Your task to perform on an android device: Do I have any events tomorrow? Image 0: 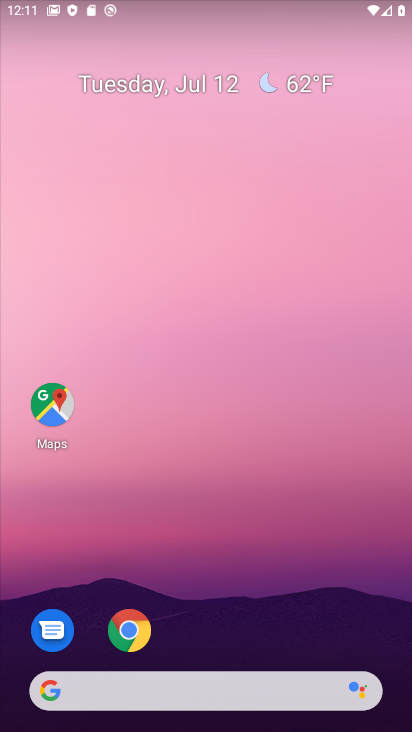
Step 0: drag from (234, 578) to (205, 87)
Your task to perform on an android device: Do I have any events tomorrow? Image 1: 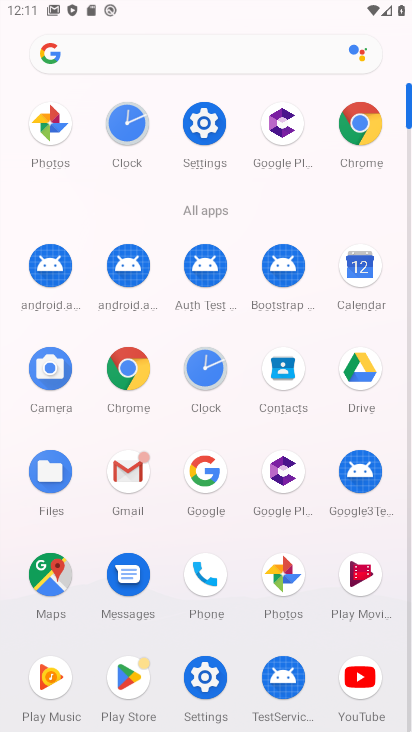
Step 1: click (366, 262)
Your task to perform on an android device: Do I have any events tomorrow? Image 2: 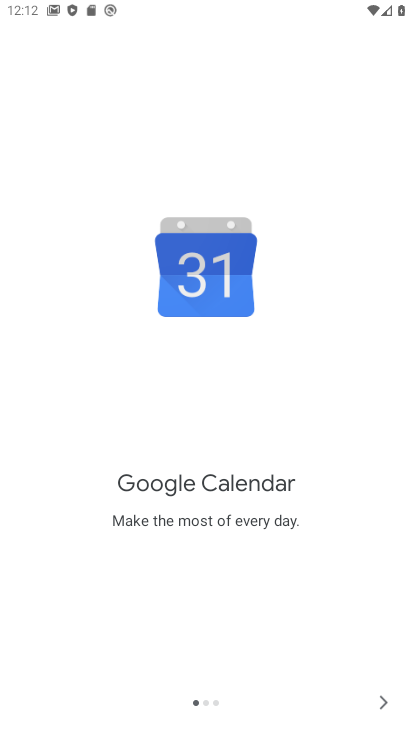
Step 2: click (384, 703)
Your task to perform on an android device: Do I have any events tomorrow? Image 3: 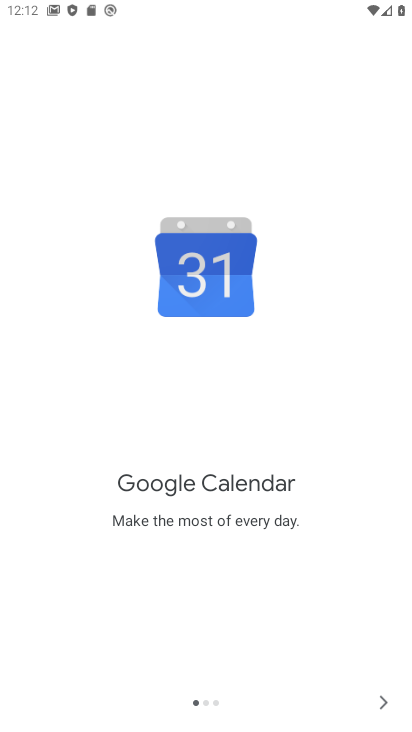
Step 3: click (384, 703)
Your task to perform on an android device: Do I have any events tomorrow? Image 4: 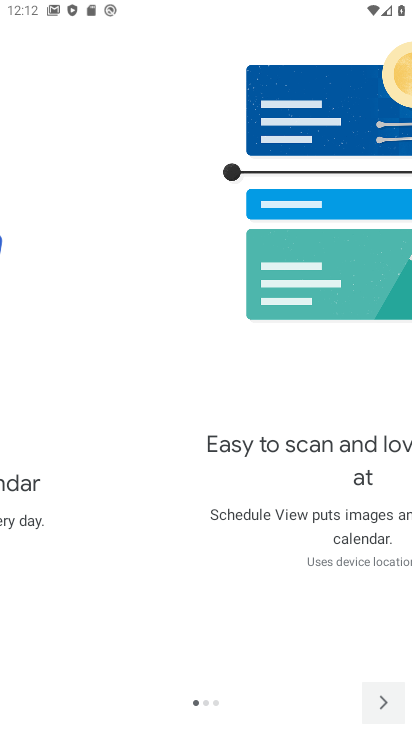
Step 4: click (384, 703)
Your task to perform on an android device: Do I have any events tomorrow? Image 5: 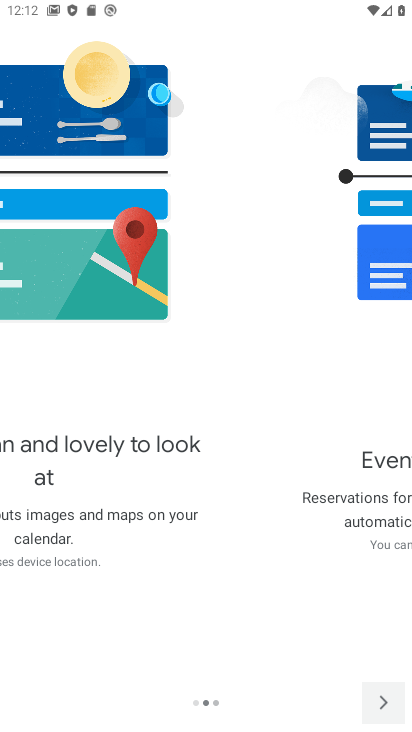
Step 5: click (384, 703)
Your task to perform on an android device: Do I have any events tomorrow? Image 6: 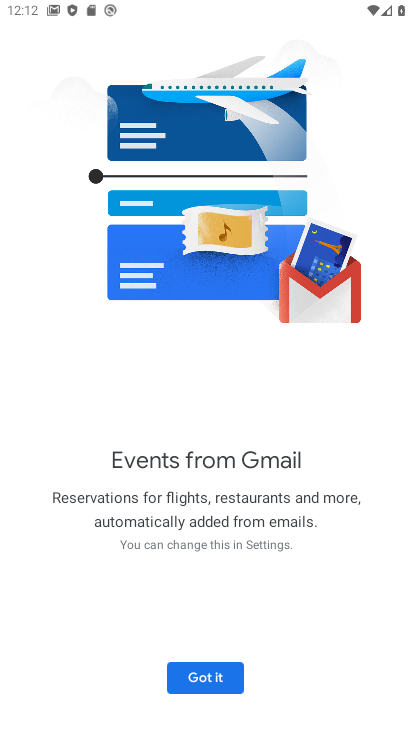
Step 6: click (192, 683)
Your task to perform on an android device: Do I have any events tomorrow? Image 7: 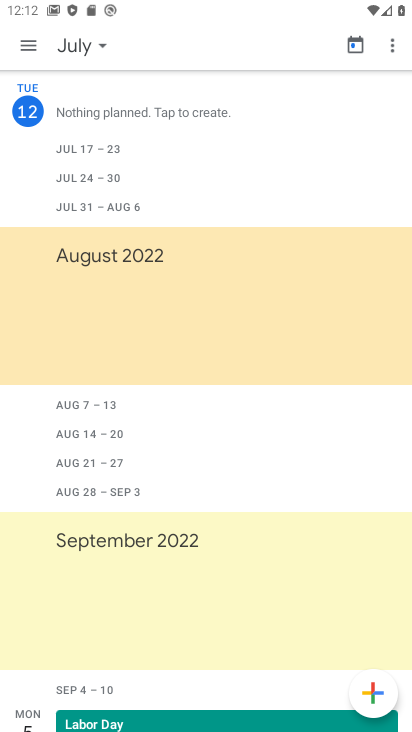
Step 7: click (24, 41)
Your task to perform on an android device: Do I have any events tomorrow? Image 8: 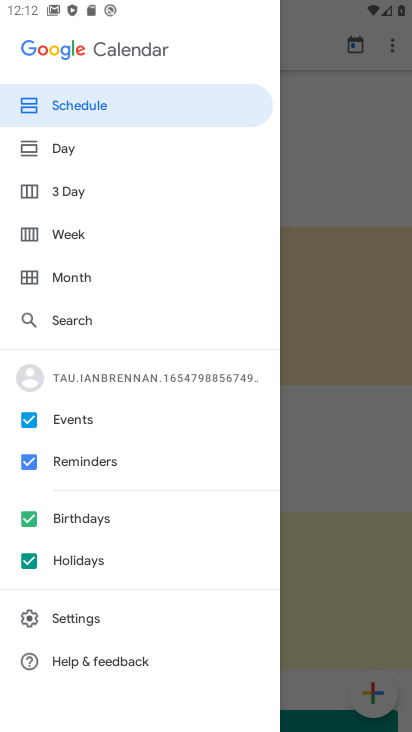
Step 8: click (62, 145)
Your task to perform on an android device: Do I have any events tomorrow? Image 9: 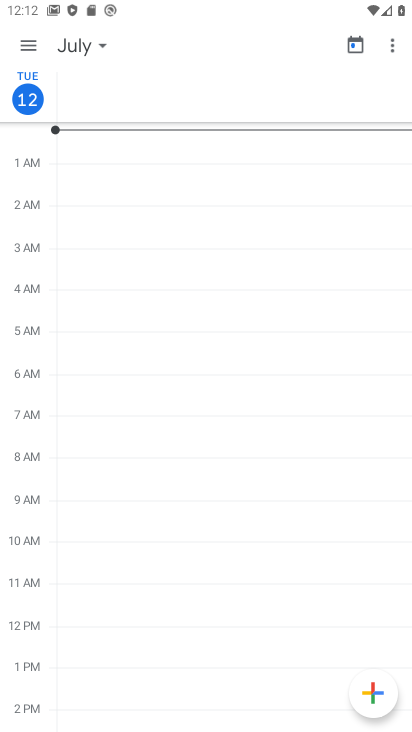
Step 9: click (104, 44)
Your task to perform on an android device: Do I have any events tomorrow? Image 10: 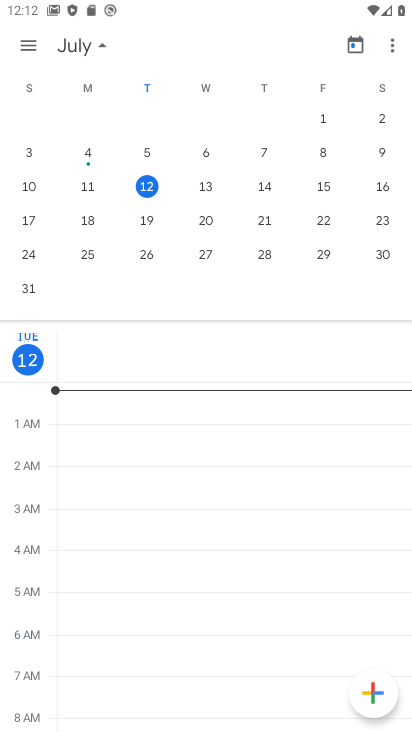
Step 10: click (209, 188)
Your task to perform on an android device: Do I have any events tomorrow? Image 11: 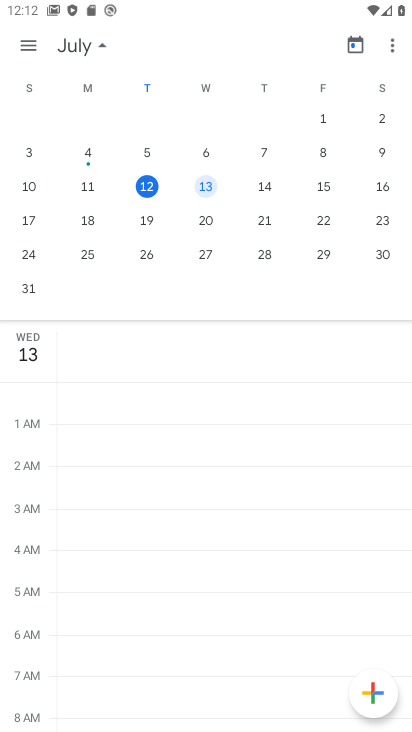
Step 11: task complete